Your task to perform on an android device: What's the weather? Image 0: 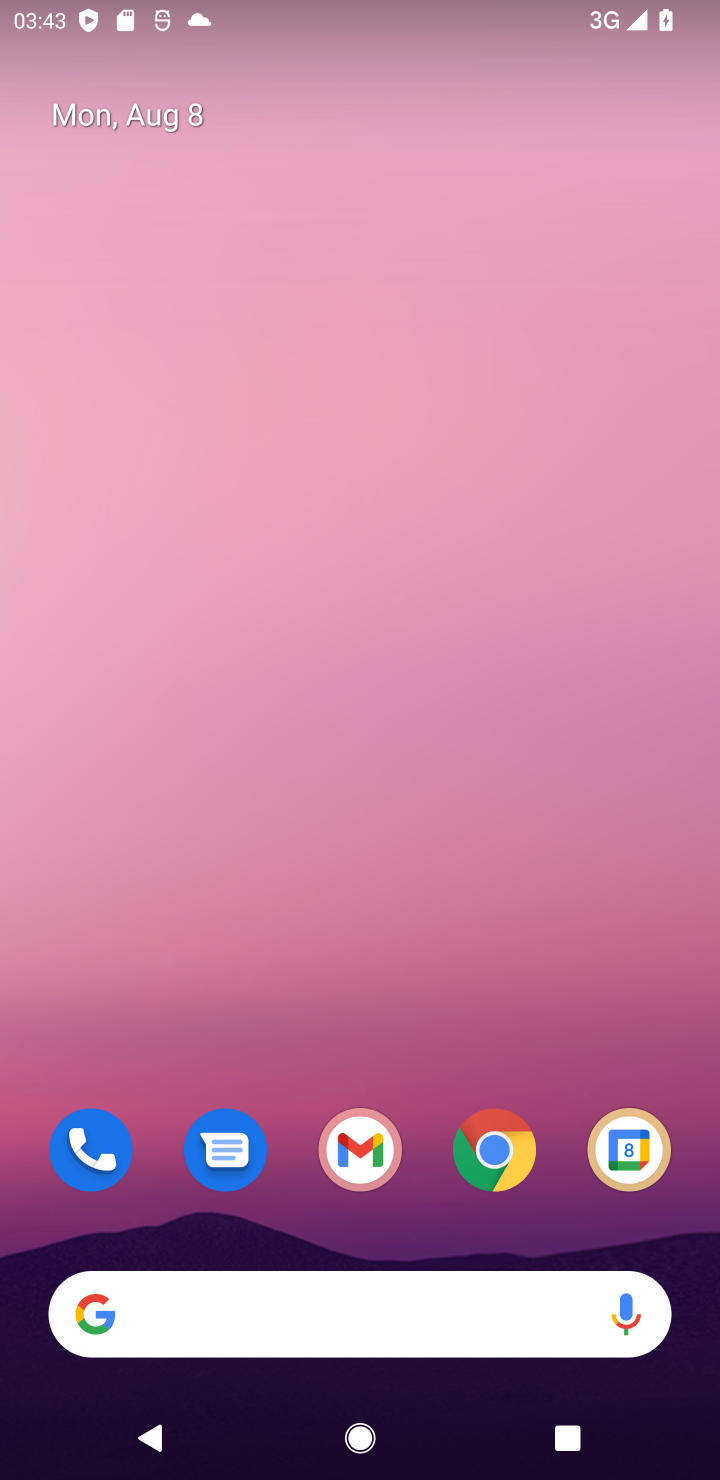
Step 0: click (81, 1165)
Your task to perform on an android device: What's the weather? Image 1: 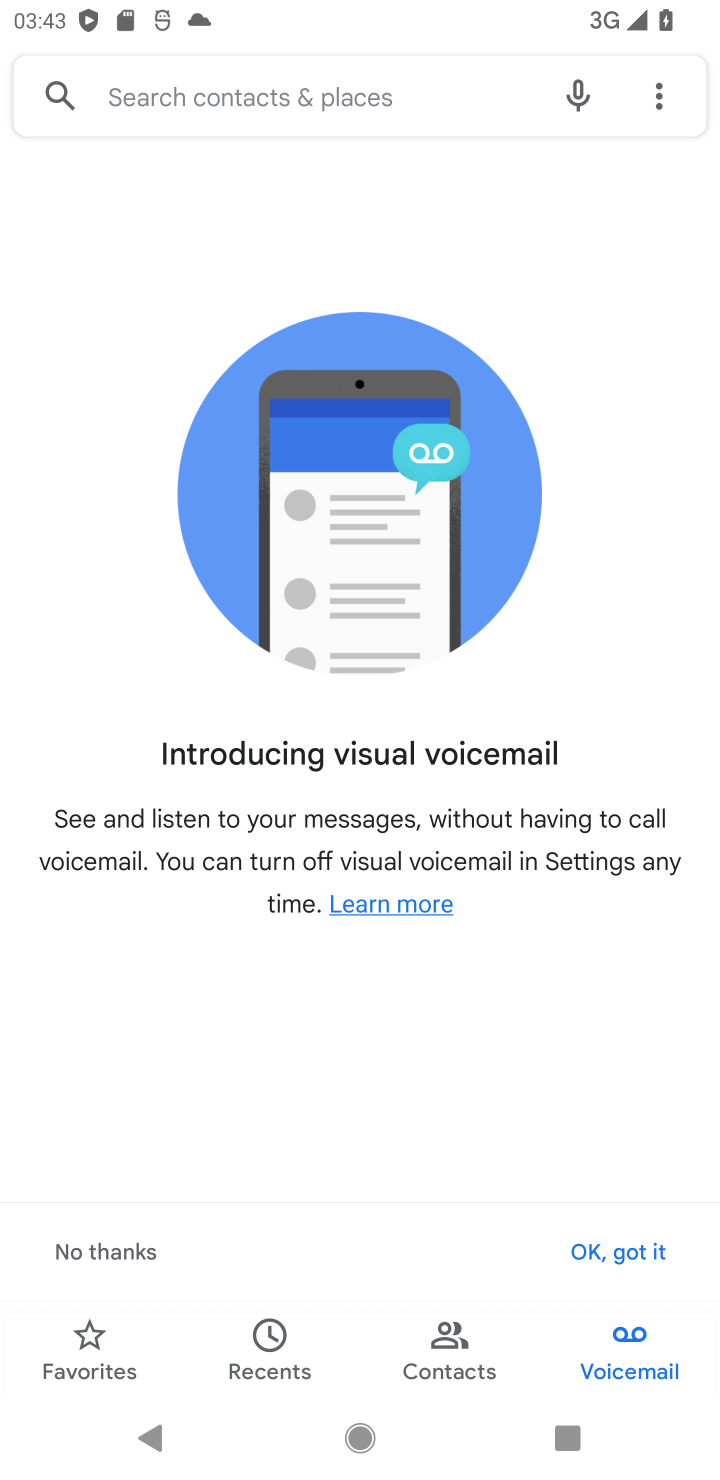
Step 1: click (412, 1326)
Your task to perform on an android device: What's the weather? Image 2: 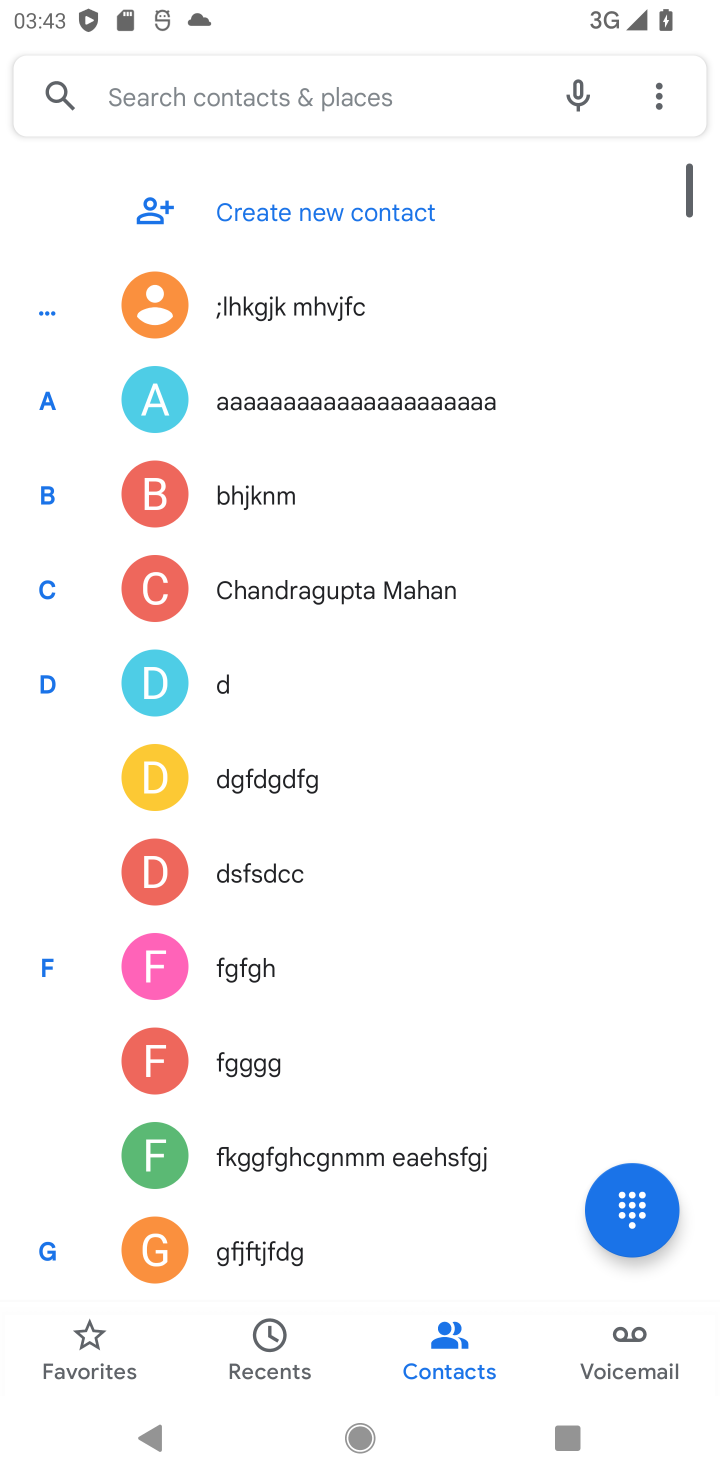
Step 2: press home button
Your task to perform on an android device: What's the weather? Image 3: 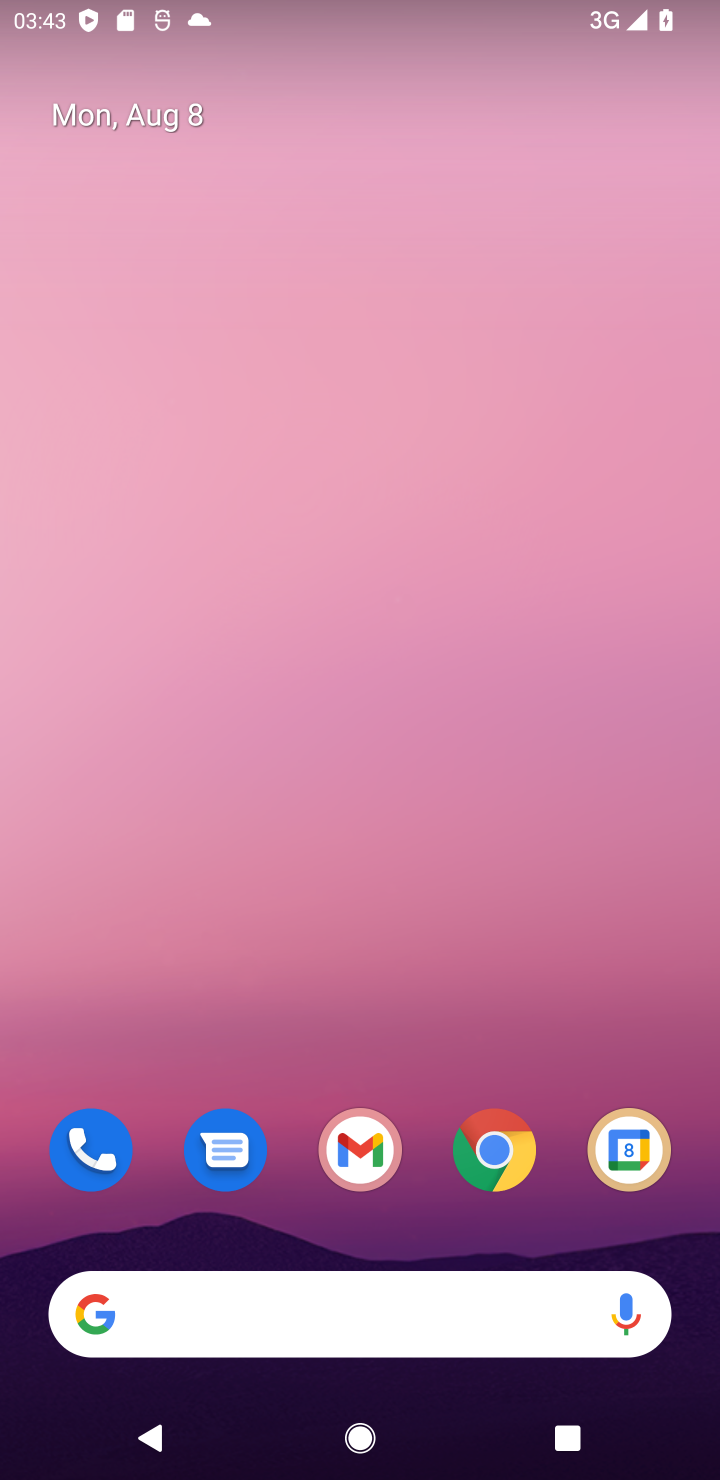
Step 3: click (231, 1311)
Your task to perform on an android device: What's the weather? Image 4: 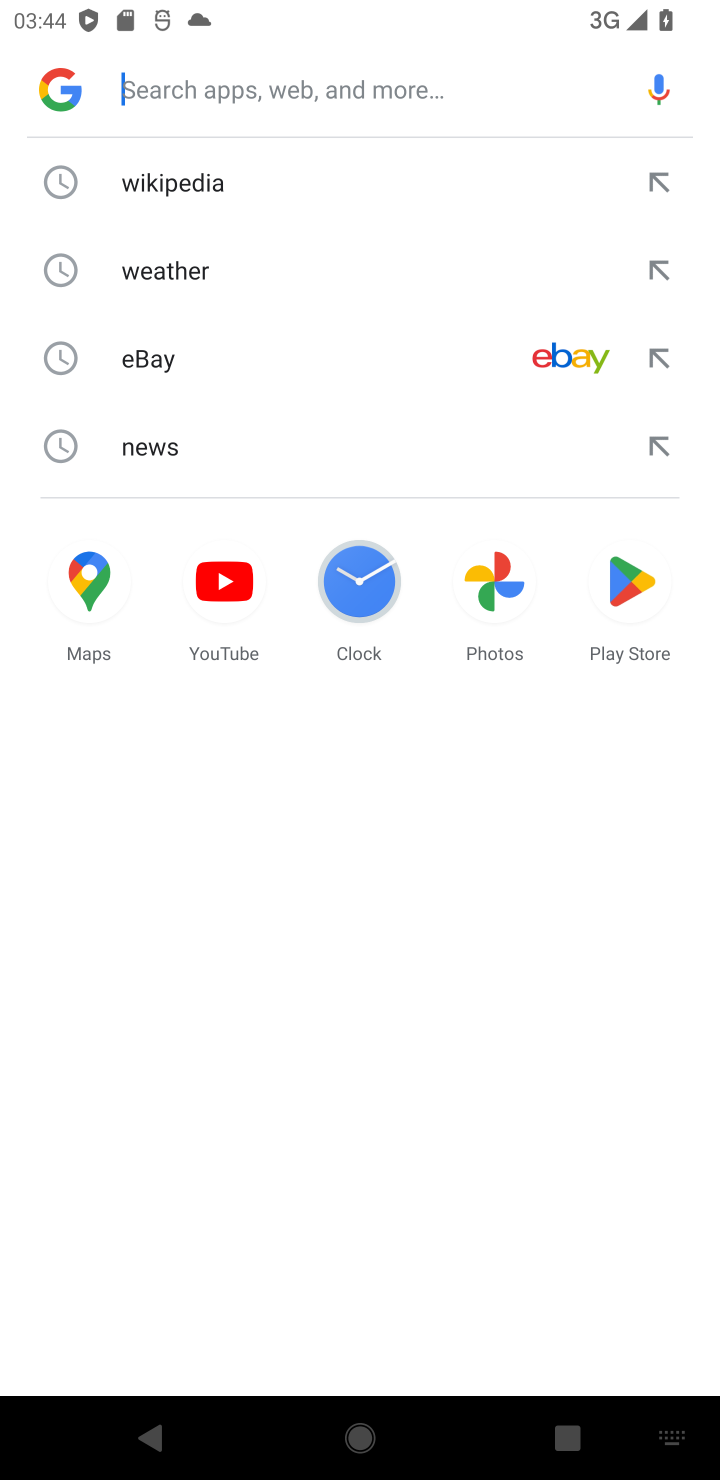
Step 4: type "What's the weather?"
Your task to perform on an android device: What's the weather? Image 5: 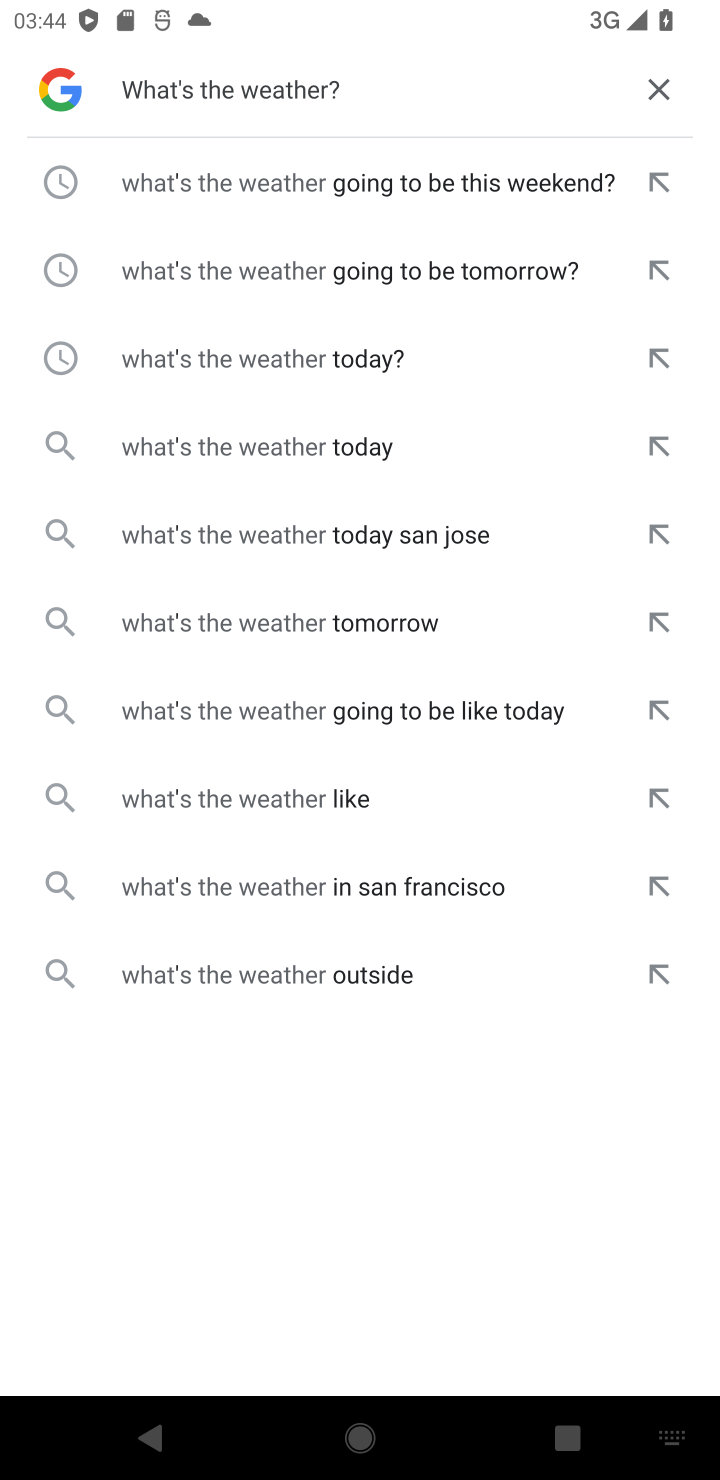
Step 5: type ""
Your task to perform on an android device: What's the weather? Image 6: 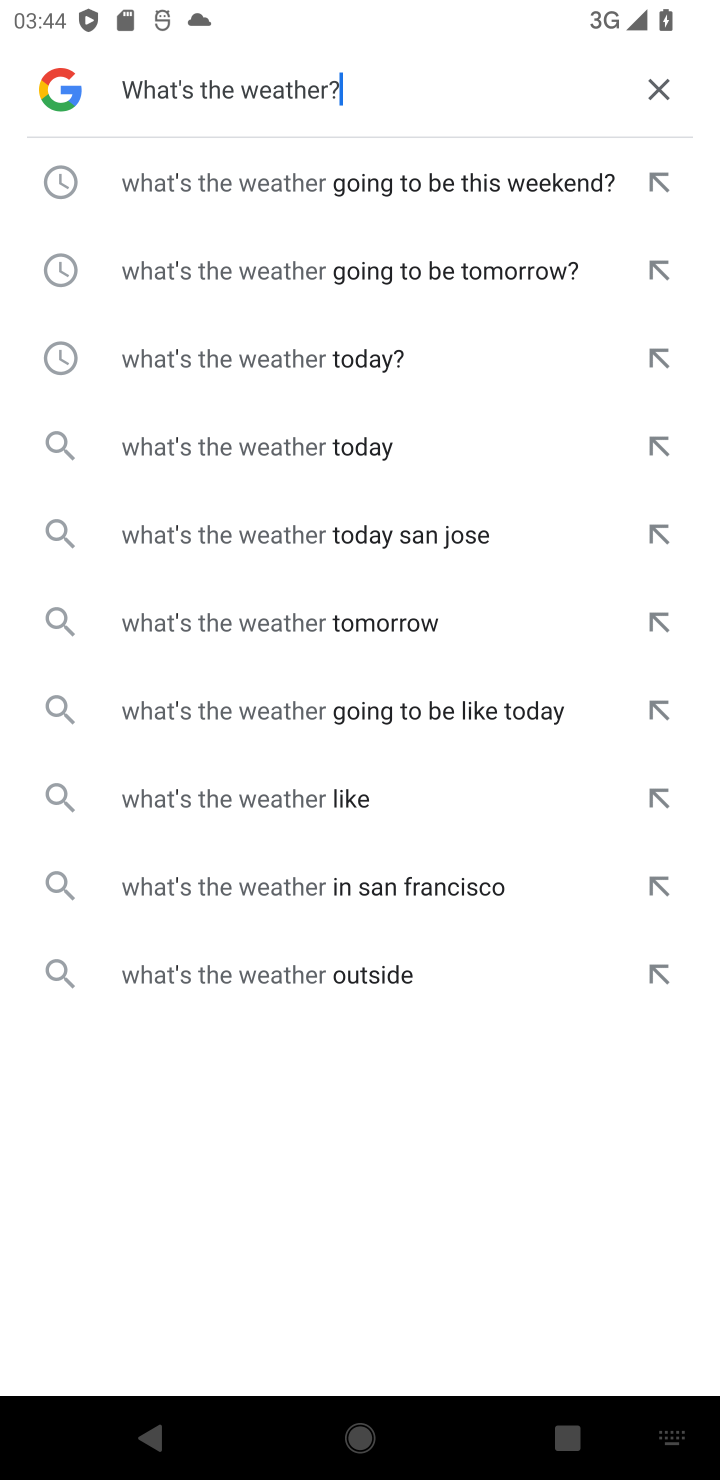
Step 6: type ""
Your task to perform on an android device: What's the weather? Image 7: 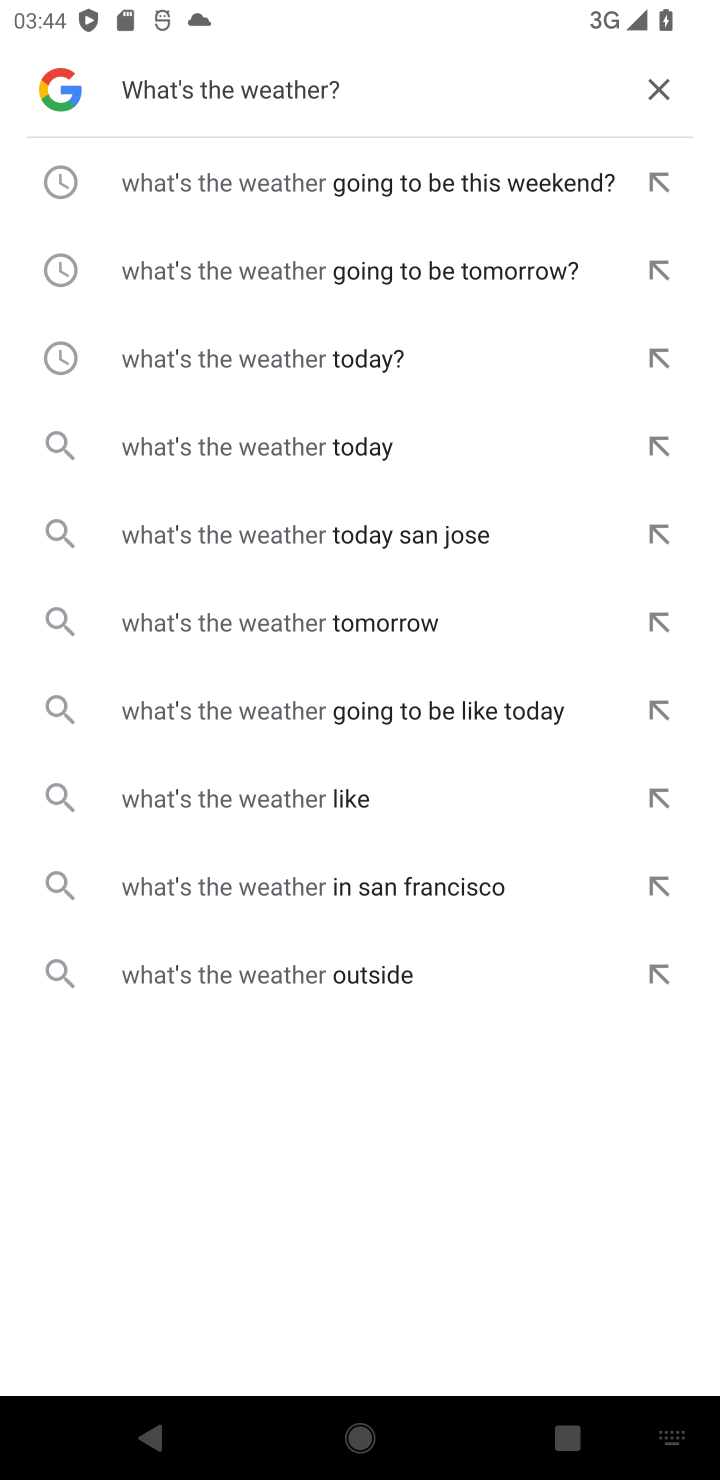
Step 7: task complete